Your task to perform on an android device: uninstall "Adobe Express: Graphic Design" Image 0: 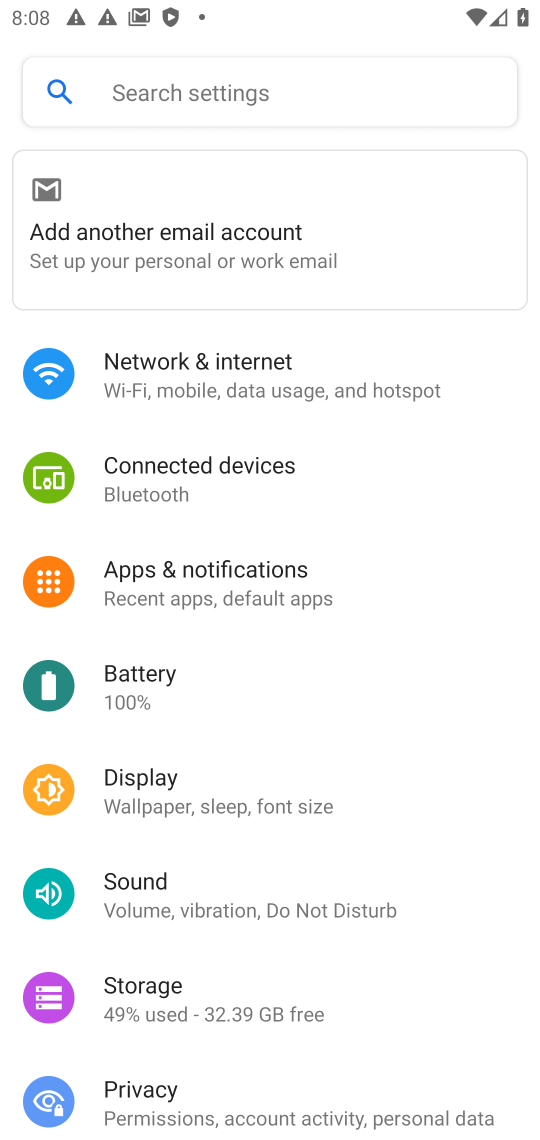
Step 0: press home button
Your task to perform on an android device: uninstall "Adobe Express: Graphic Design" Image 1: 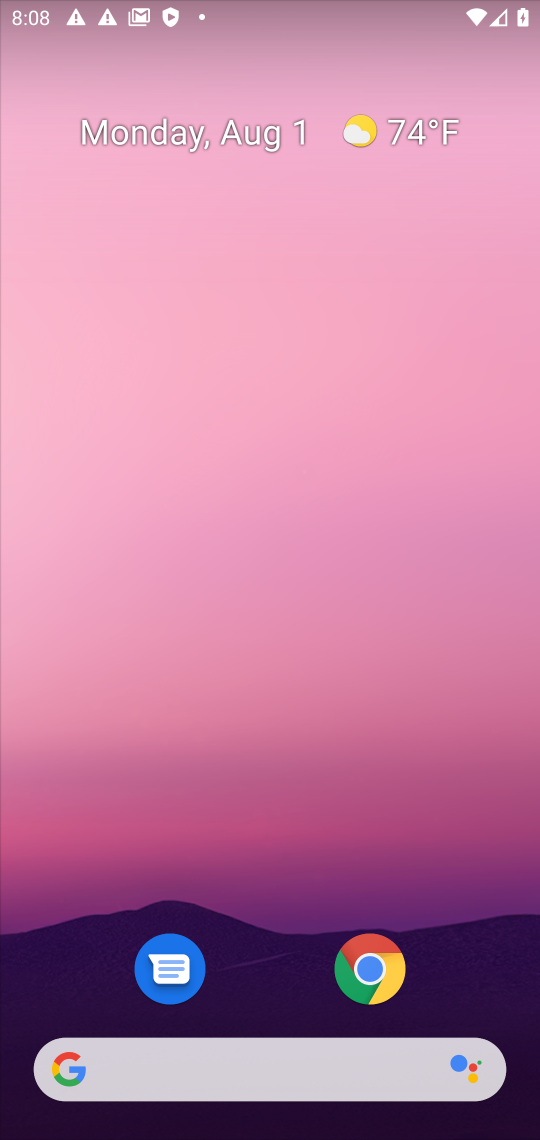
Step 1: drag from (227, 764) to (257, 18)
Your task to perform on an android device: uninstall "Adobe Express: Graphic Design" Image 2: 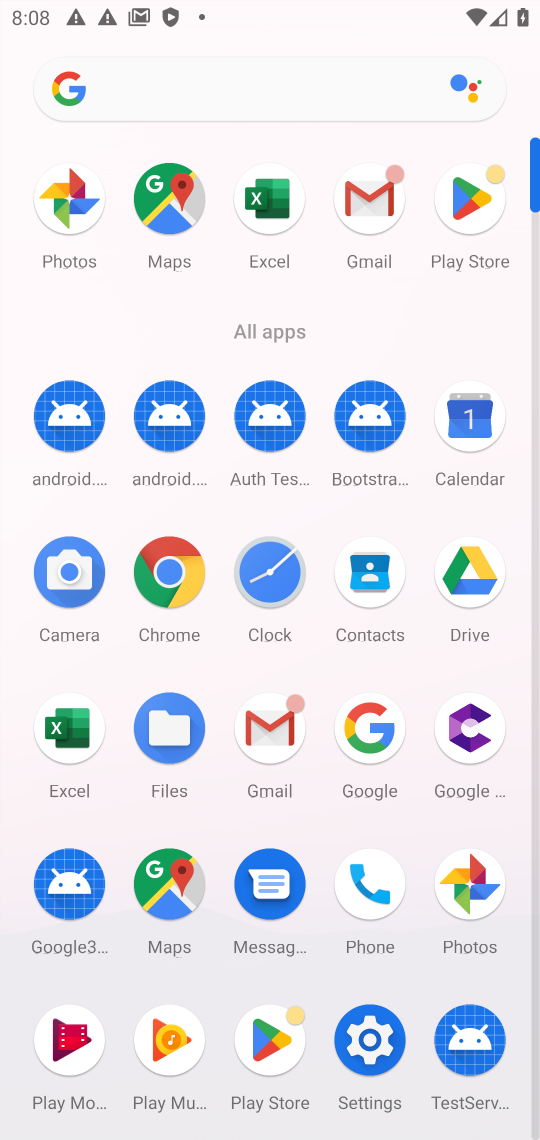
Step 2: click (486, 207)
Your task to perform on an android device: uninstall "Adobe Express: Graphic Design" Image 3: 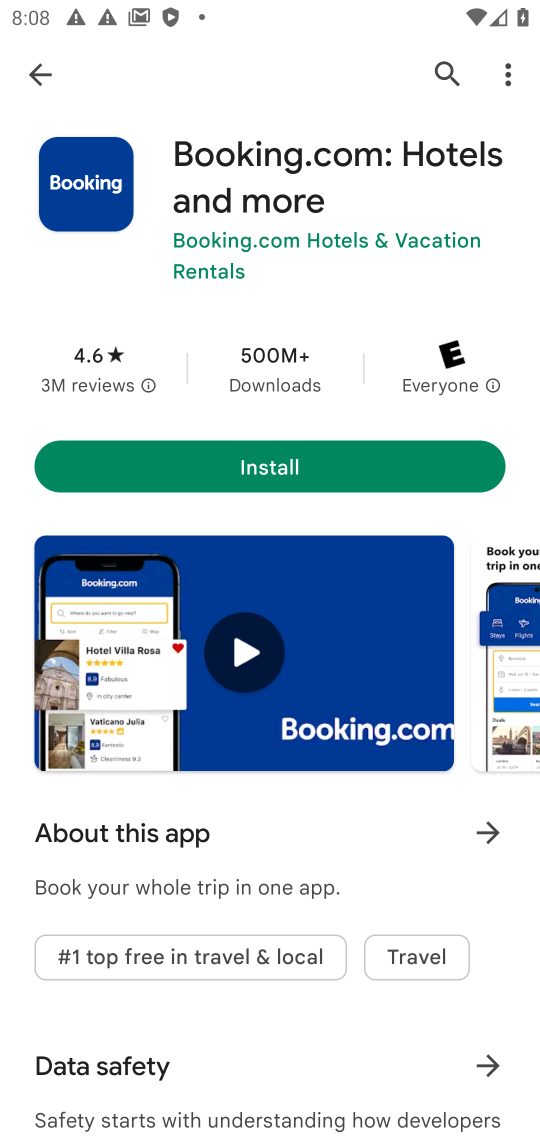
Step 3: click (37, 72)
Your task to perform on an android device: uninstall "Adobe Express: Graphic Design" Image 4: 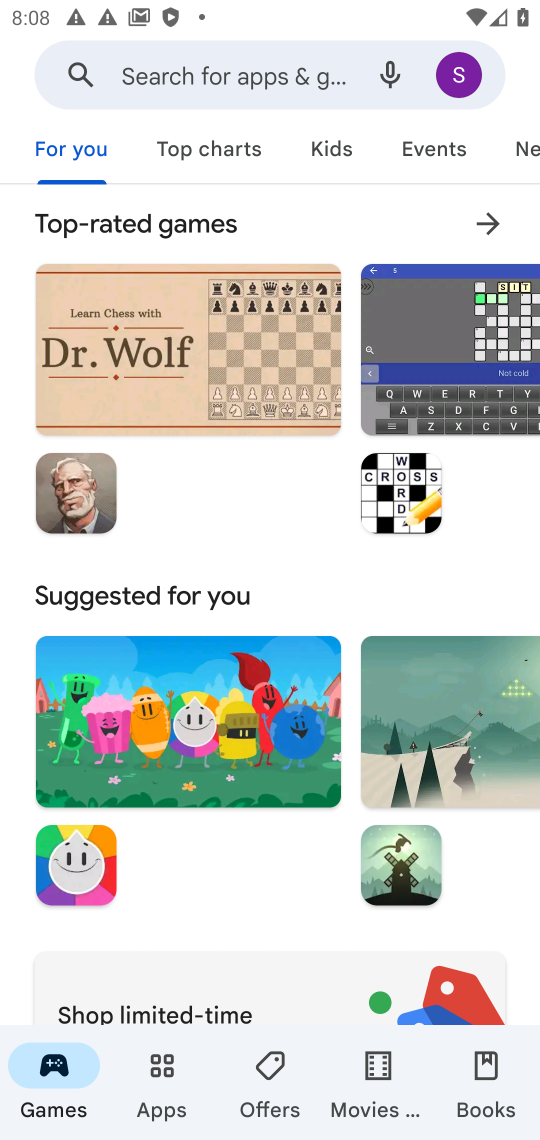
Step 4: click (177, 72)
Your task to perform on an android device: uninstall "Adobe Express: Graphic Design" Image 5: 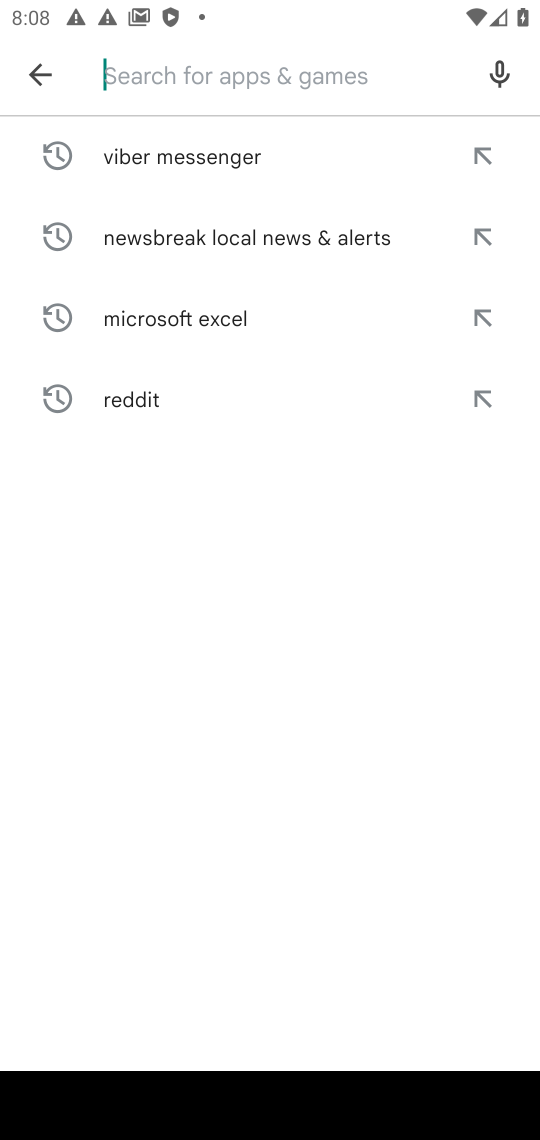
Step 5: type "Adobe Express: Graphic Design"
Your task to perform on an android device: uninstall "Adobe Express: Graphic Design" Image 6: 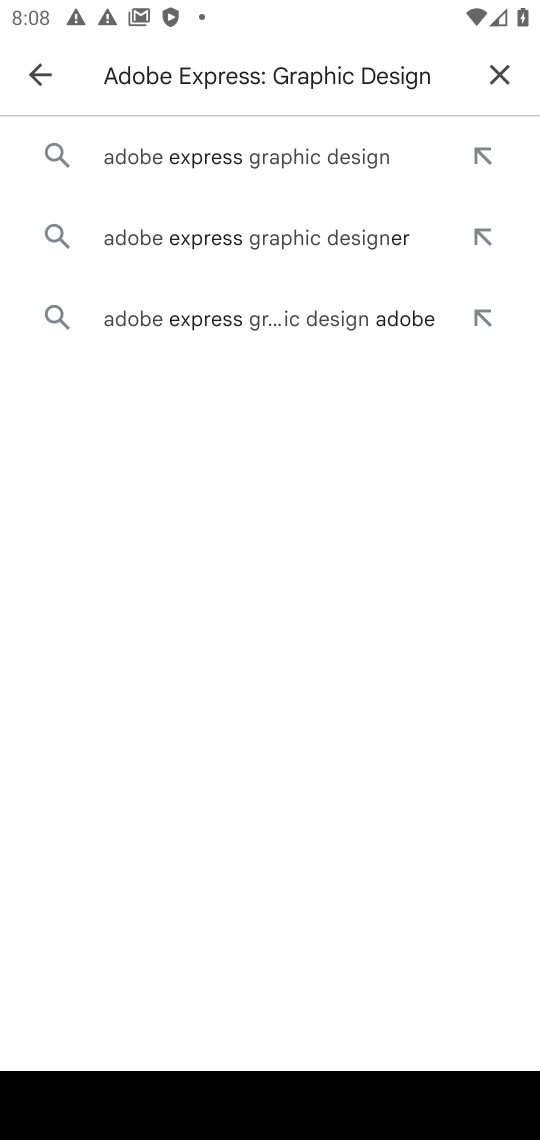
Step 6: click (224, 172)
Your task to perform on an android device: uninstall "Adobe Express: Graphic Design" Image 7: 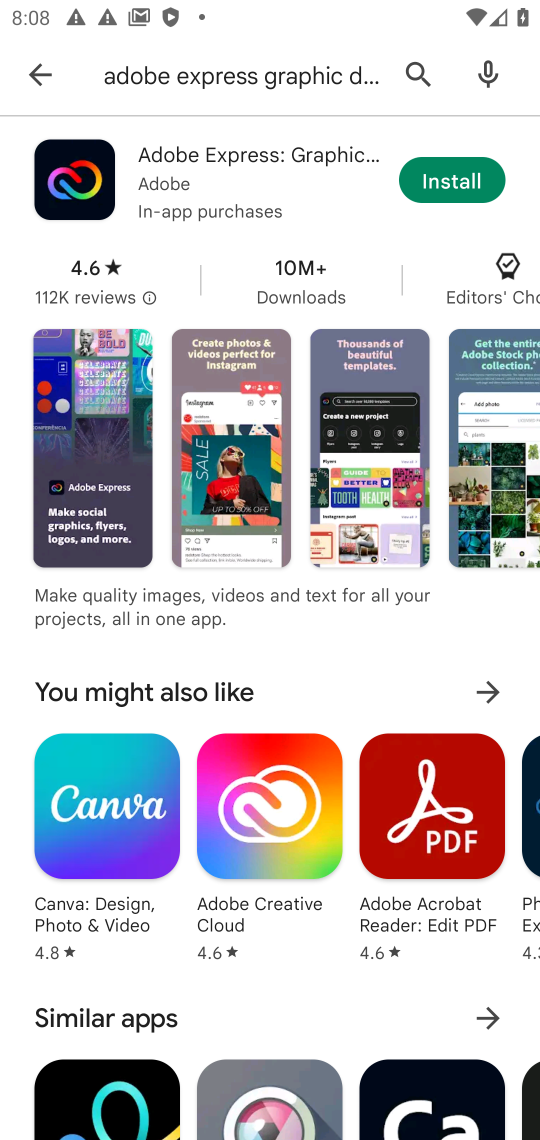
Step 7: task complete